Your task to perform on an android device: Open calendar and show me the third week of next month Image 0: 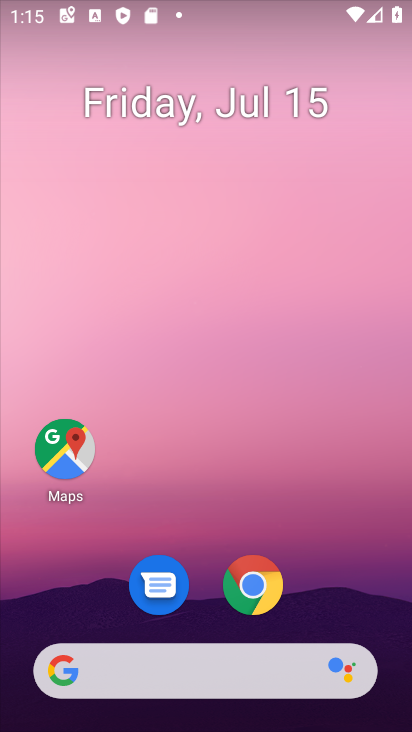
Step 0: drag from (248, 489) to (224, 33)
Your task to perform on an android device: Open calendar and show me the third week of next month Image 1: 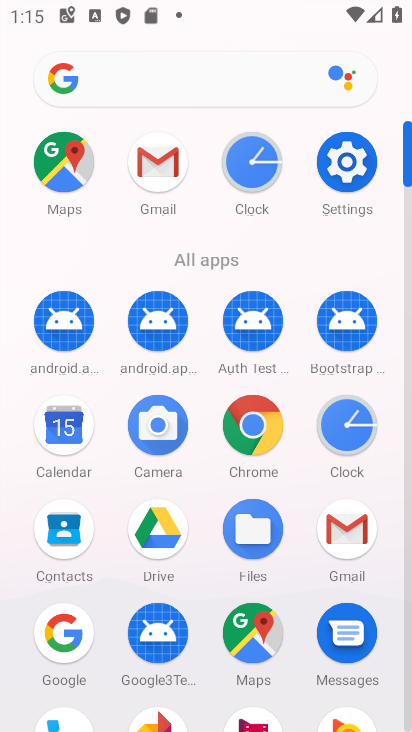
Step 1: click (72, 434)
Your task to perform on an android device: Open calendar and show me the third week of next month Image 2: 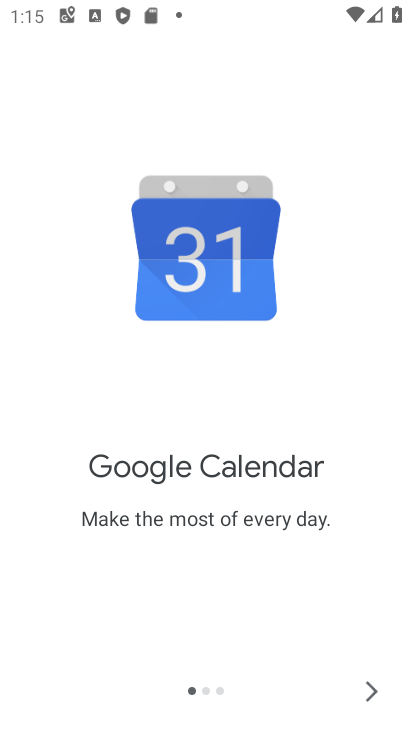
Step 2: click (362, 681)
Your task to perform on an android device: Open calendar and show me the third week of next month Image 3: 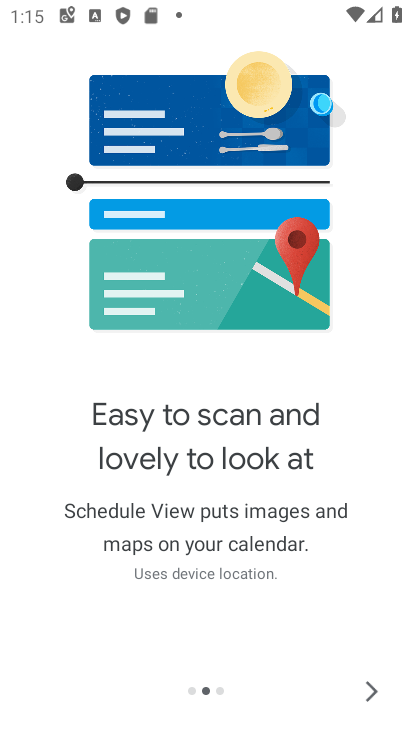
Step 3: click (362, 681)
Your task to perform on an android device: Open calendar and show me the third week of next month Image 4: 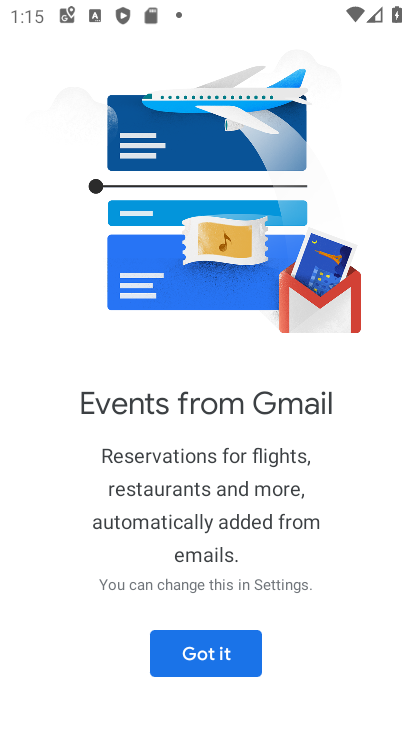
Step 4: click (260, 649)
Your task to perform on an android device: Open calendar and show me the third week of next month Image 5: 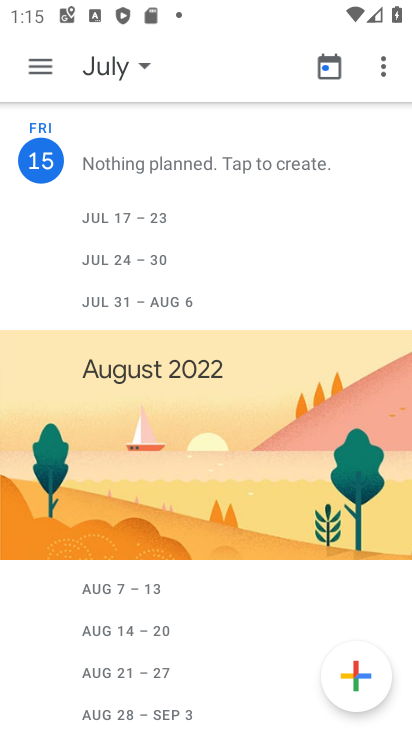
Step 5: click (34, 69)
Your task to perform on an android device: Open calendar and show me the third week of next month Image 6: 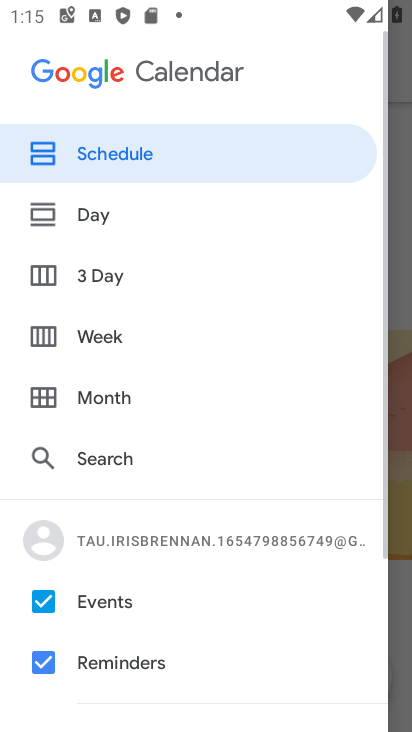
Step 6: click (45, 392)
Your task to perform on an android device: Open calendar and show me the third week of next month Image 7: 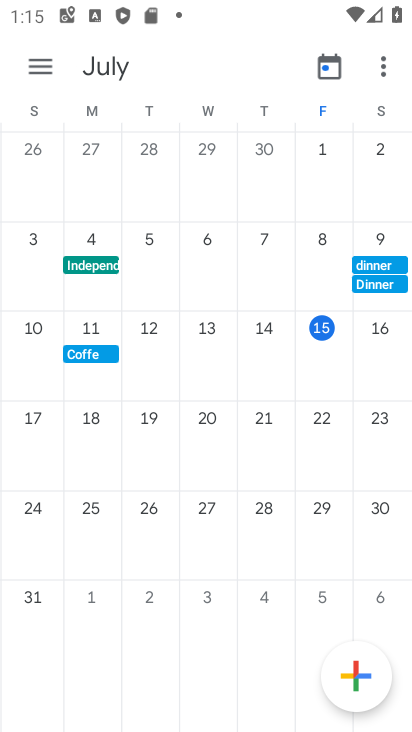
Step 7: drag from (356, 406) to (2, 352)
Your task to perform on an android device: Open calendar and show me the third week of next month Image 8: 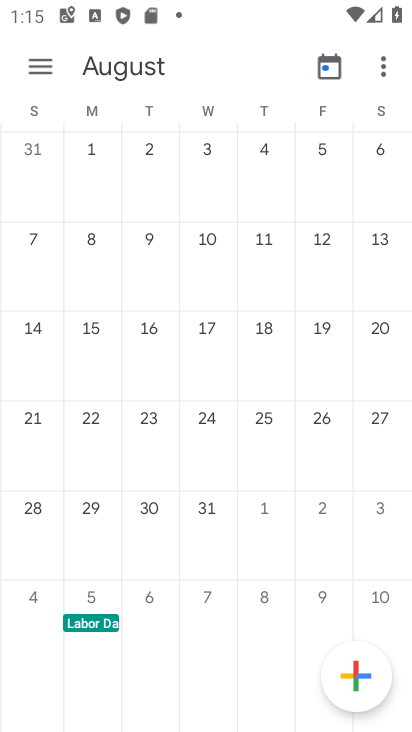
Step 8: click (34, 415)
Your task to perform on an android device: Open calendar and show me the third week of next month Image 9: 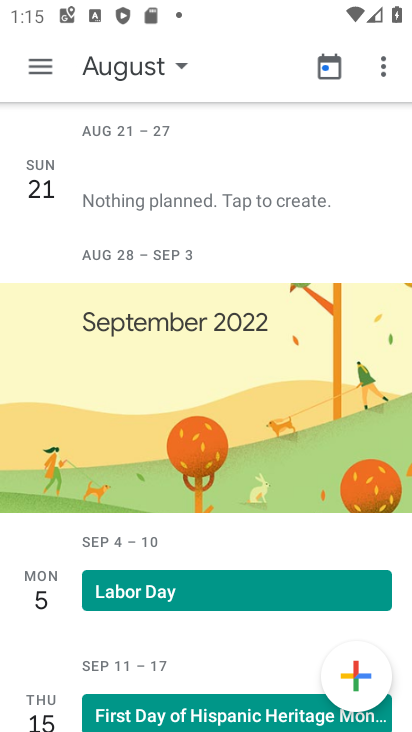
Step 9: click (50, 74)
Your task to perform on an android device: Open calendar and show me the third week of next month Image 10: 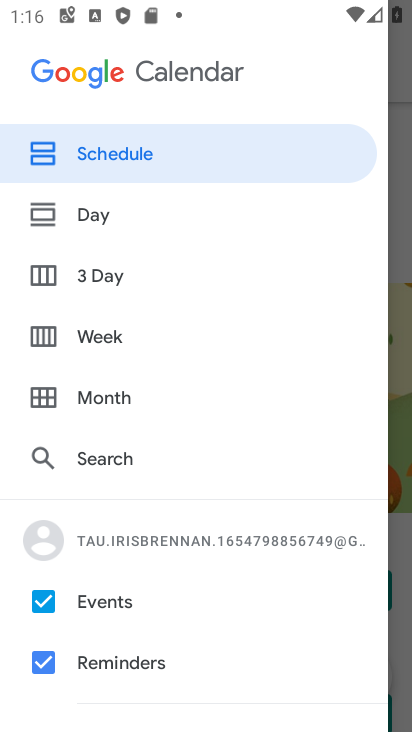
Step 10: click (43, 332)
Your task to perform on an android device: Open calendar and show me the third week of next month Image 11: 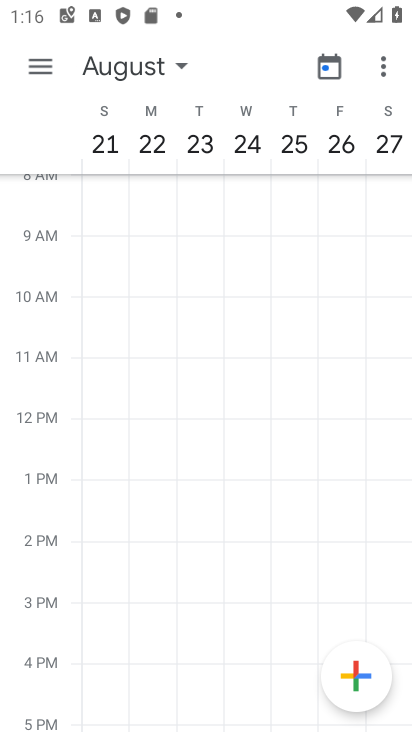
Step 11: task complete